Your task to perform on an android device: empty trash in google photos Image 0: 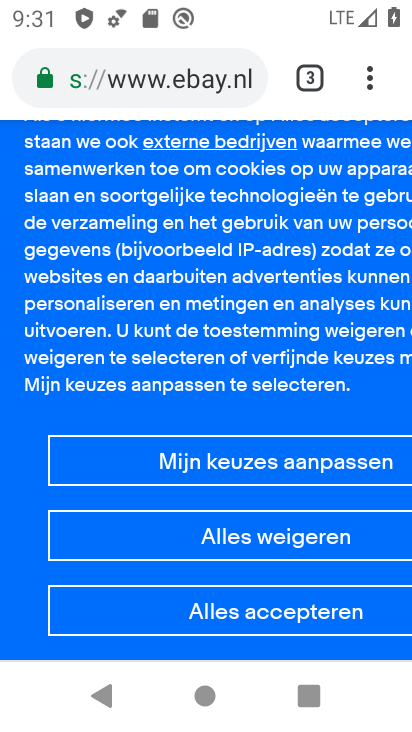
Step 0: press home button
Your task to perform on an android device: empty trash in google photos Image 1: 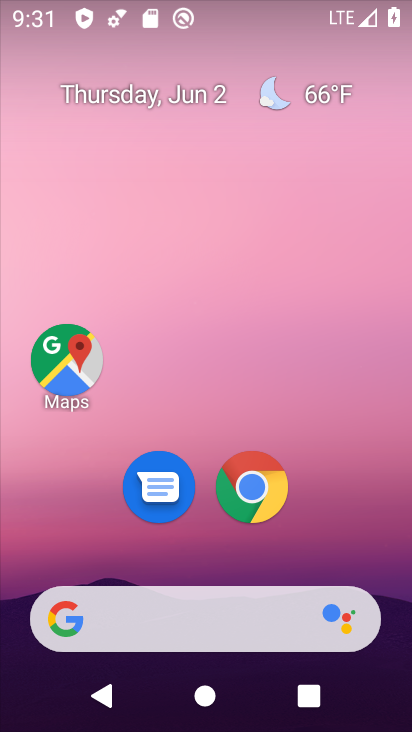
Step 1: drag from (227, 724) to (180, 134)
Your task to perform on an android device: empty trash in google photos Image 2: 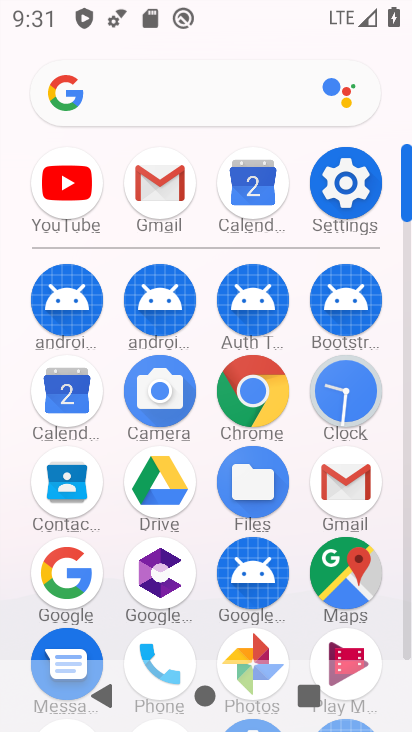
Step 2: click (248, 655)
Your task to perform on an android device: empty trash in google photos Image 3: 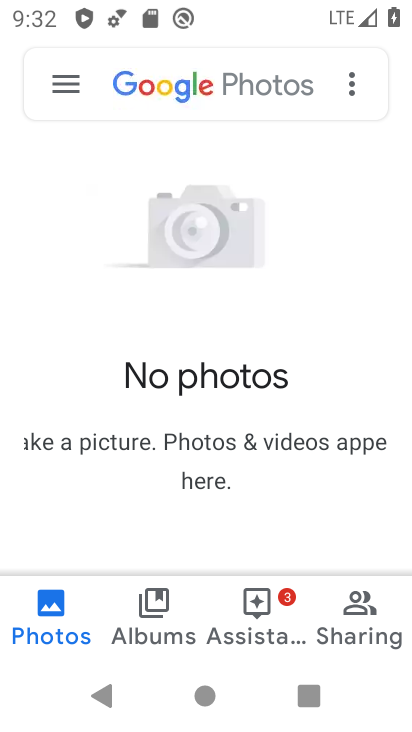
Step 3: click (63, 85)
Your task to perform on an android device: empty trash in google photos Image 4: 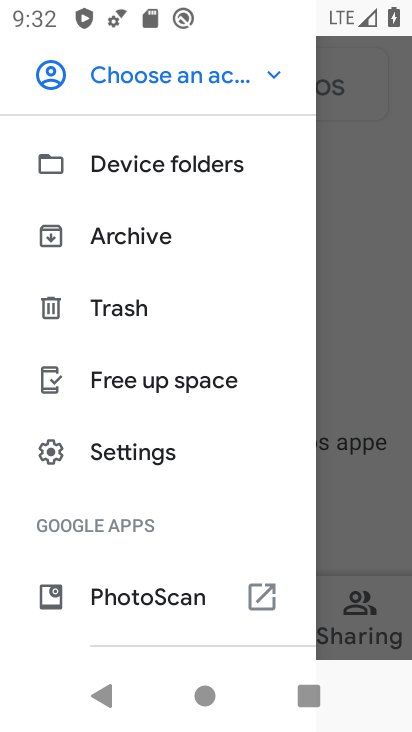
Step 4: click (123, 311)
Your task to perform on an android device: empty trash in google photos Image 5: 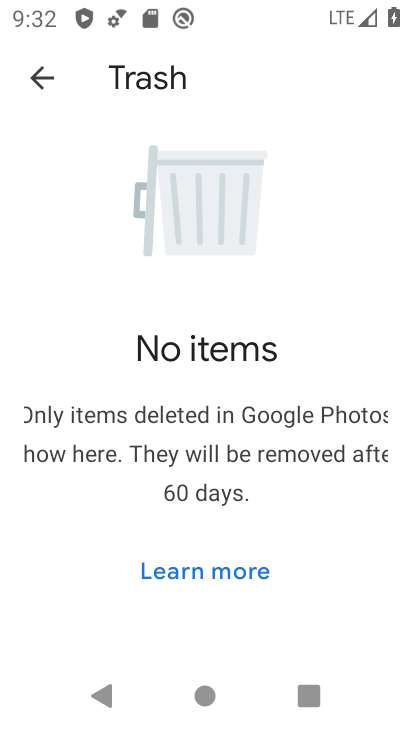
Step 5: task complete